Your task to perform on an android device: Do I have any events today? Image 0: 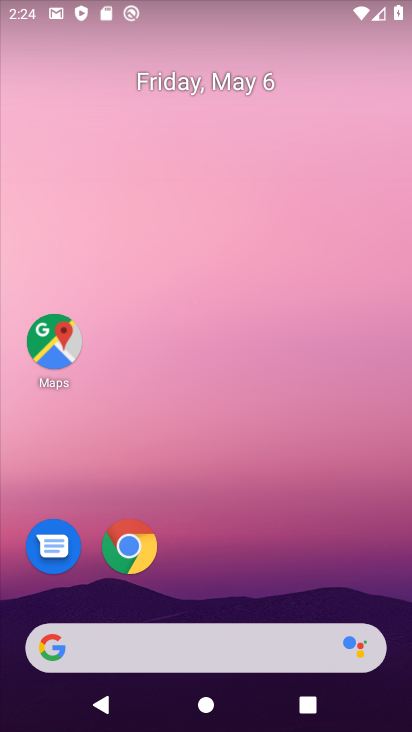
Step 0: click (223, 88)
Your task to perform on an android device: Do I have any events today? Image 1: 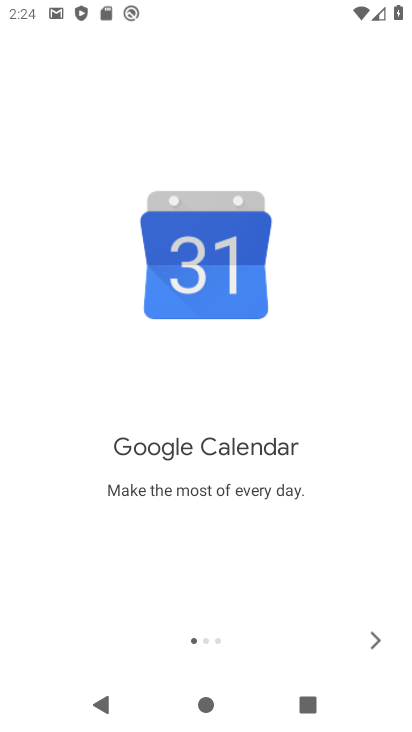
Step 1: click (372, 632)
Your task to perform on an android device: Do I have any events today? Image 2: 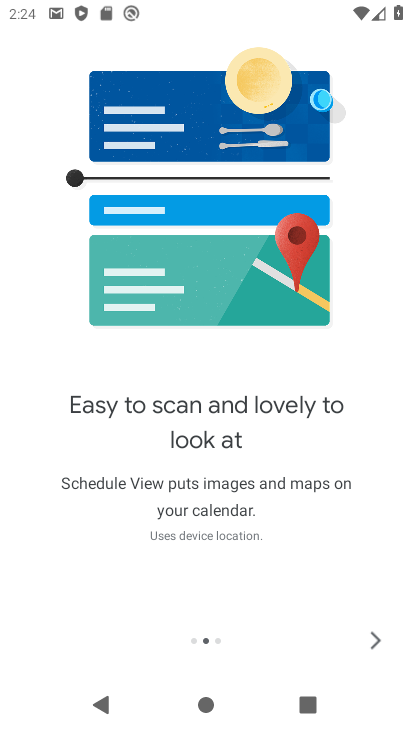
Step 2: click (372, 632)
Your task to perform on an android device: Do I have any events today? Image 3: 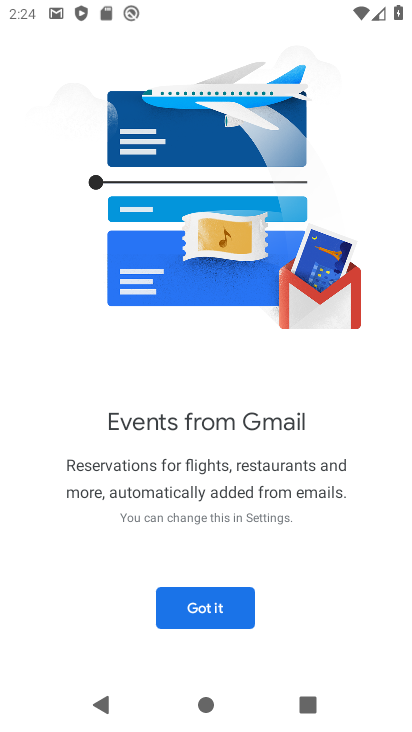
Step 3: click (235, 600)
Your task to perform on an android device: Do I have any events today? Image 4: 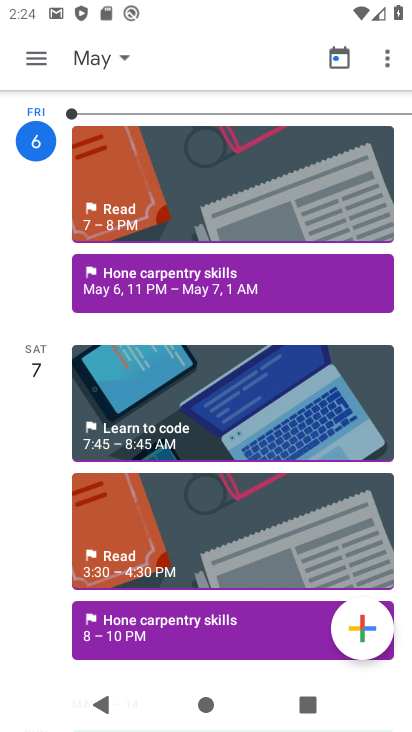
Step 4: click (40, 49)
Your task to perform on an android device: Do I have any events today? Image 5: 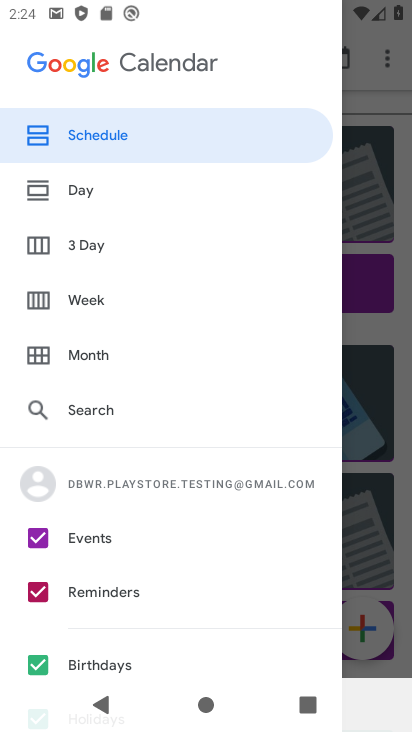
Step 5: click (35, 597)
Your task to perform on an android device: Do I have any events today? Image 6: 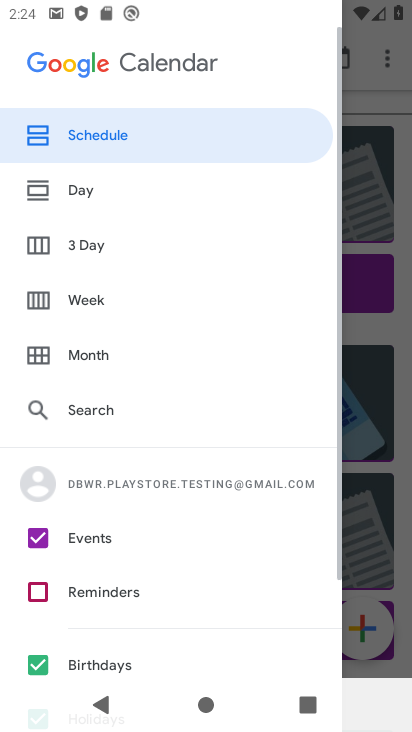
Step 6: click (42, 661)
Your task to perform on an android device: Do I have any events today? Image 7: 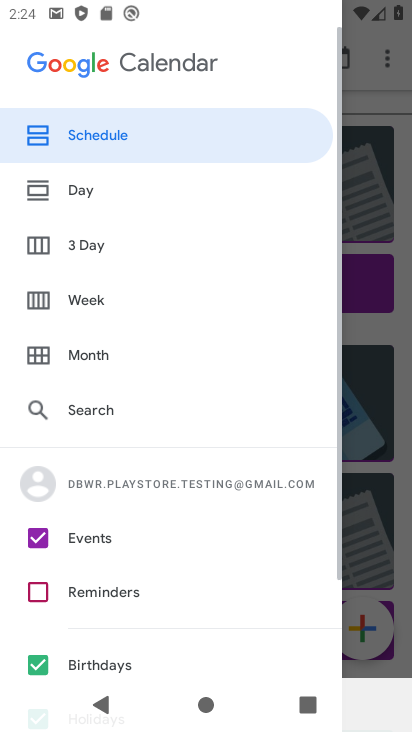
Step 7: drag from (200, 535) to (246, 267)
Your task to perform on an android device: Do I have any events today? Image 8: 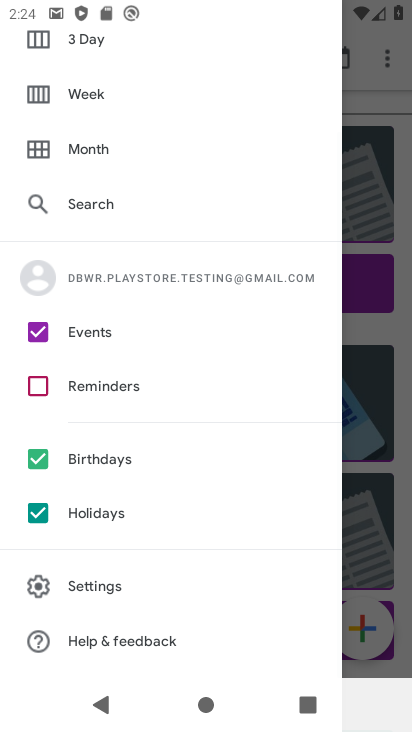
Step 8: click (35, 519)
Your task to perform on an android device: Do I have any events today? Image 9: 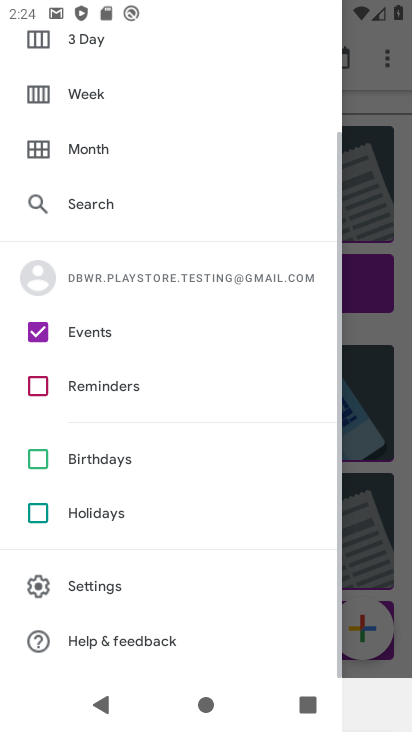
Step 9: click (38, 462)
Your task to perform on an android device: Do I have any events today? Image 10: 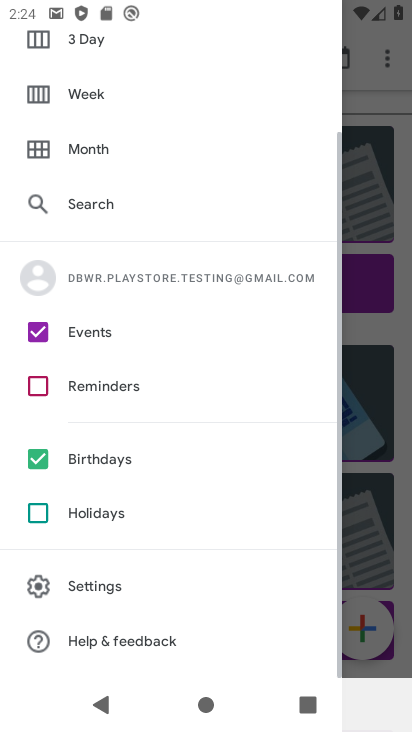
Step 10: click (39, 460)
Your task to perform on an android device: Do I have any events today? Image 11: 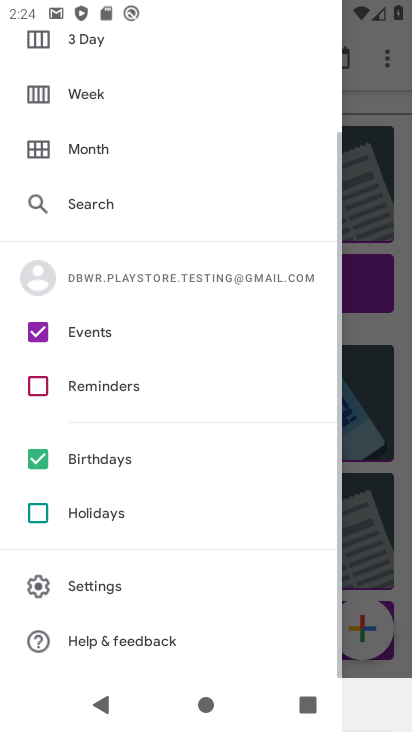
Step 11: click (41, 456)
Your task to perform on an android device: Do I have any events today? Image 12: 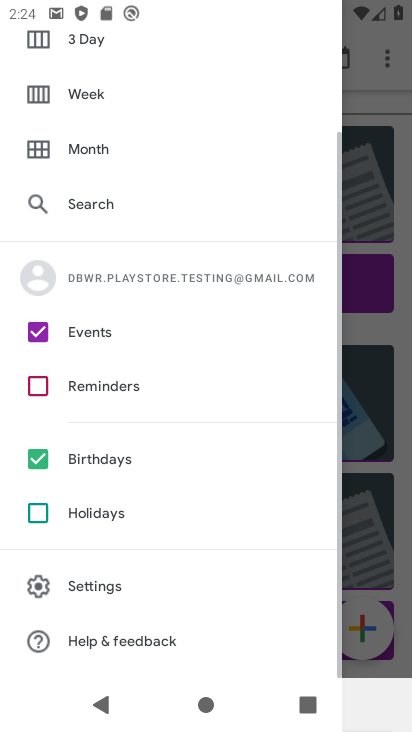
Step 12: click (39, 453)
Your task to perform on an android device: Do I have any events today? Image 13: 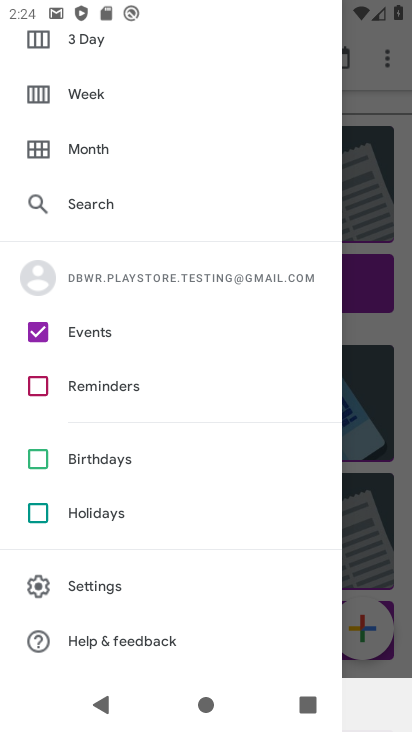
Step 13: click (402, 273)
Your task to perform on an android device: Do I have any events today? Image 14: 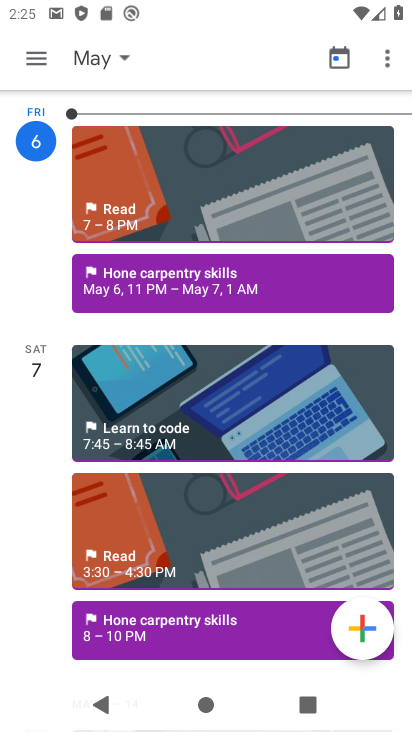
Step 14: task complete